Your task to perform on an android device: turn on wifi Image 0: 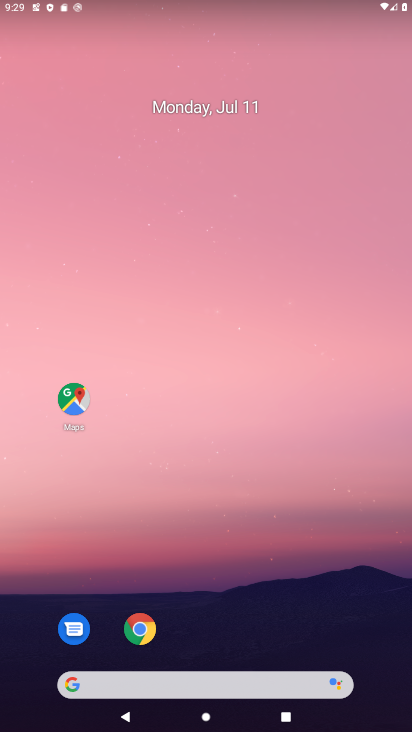
Step 0: drag from (32, 676) to (227, 146)
Your task to perform on an android device: turn on wifi Image 1: 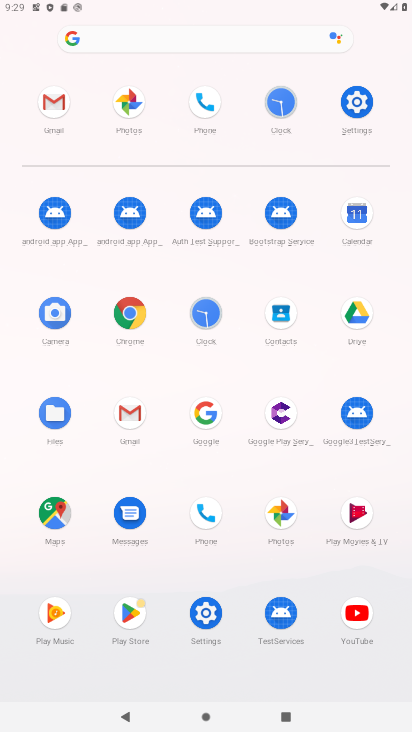
Step 1: click (204, 605)
Your task to perform on an android device: turn on wifi Image 2: 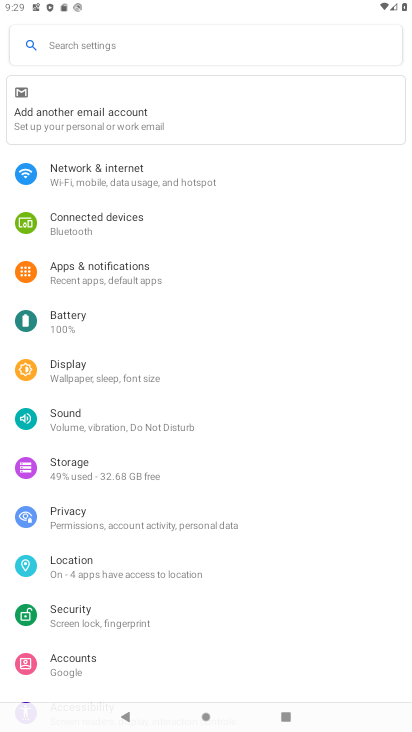
Step 2: click (145, 96)
Your task to perform on an android device: turn on wifi Image 3: 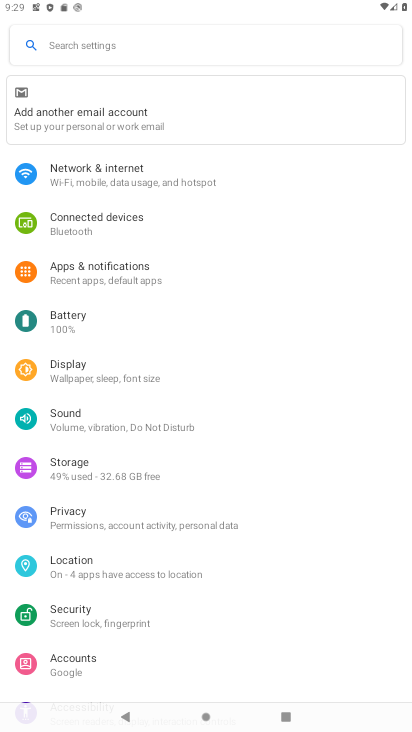
Step 3: click (134, 187)
Your task to perform on an android device: turn on wifi Image 4: 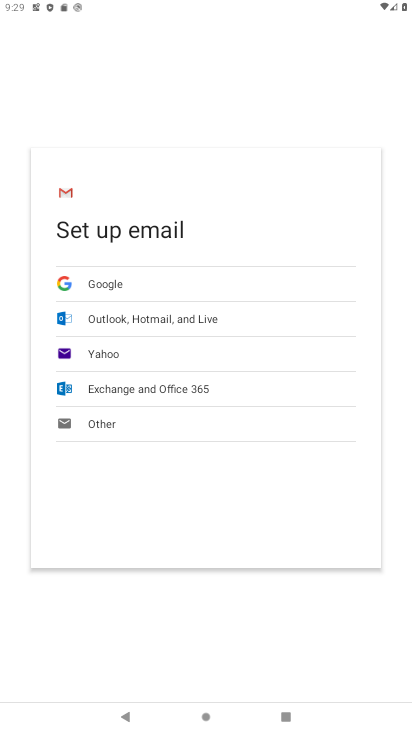
Step 4: press back button
Your task to perform on an android device: turn on wifi Image 5: 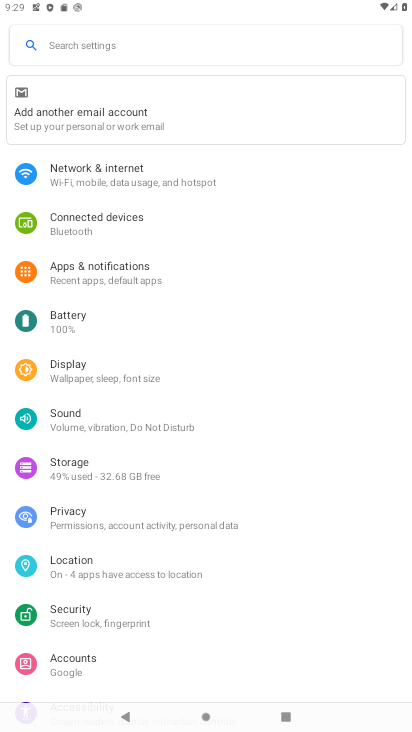
Step 5: click (125, 152)
Your task to perform on an android device: turn on wifi Image 6: 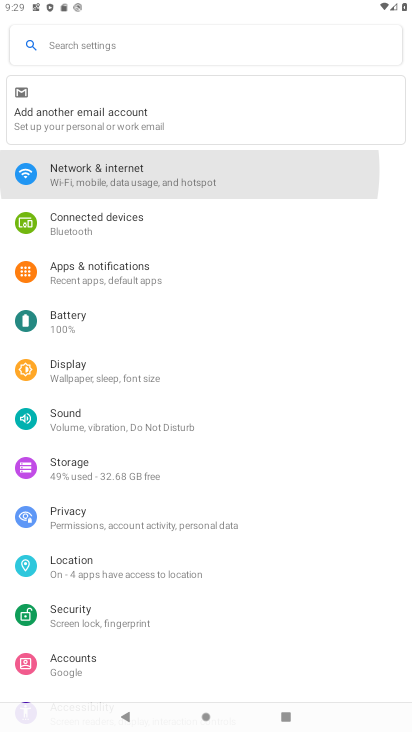
Step 6: click (130, 166)
Your task to perform on an android device: turn on wifi Image 7: 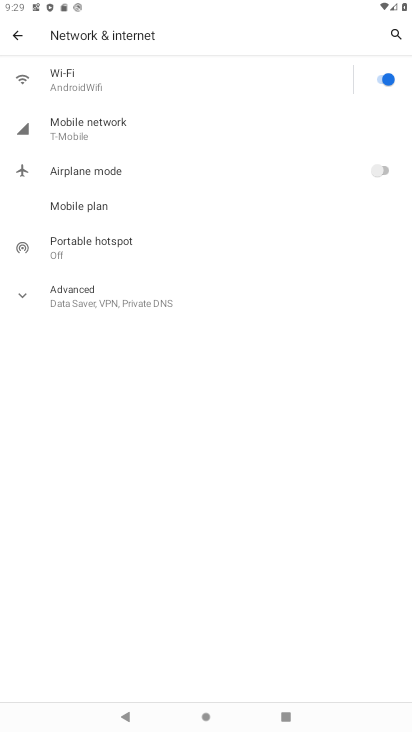
Step 7: task complete